Your task to perform on an android device: Open eBay Image 0: 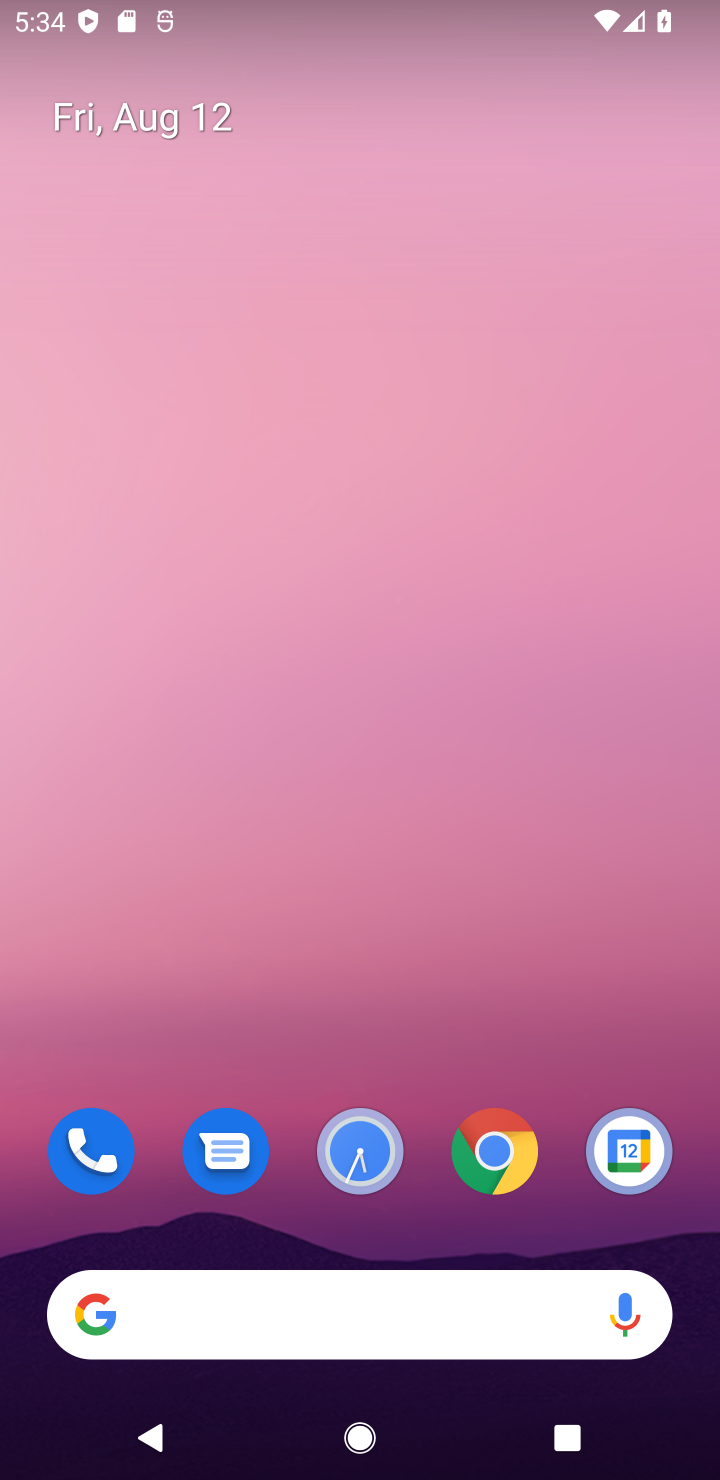
Step 0: press home button
Your task to perform on an android device: Open eBay Image 1: 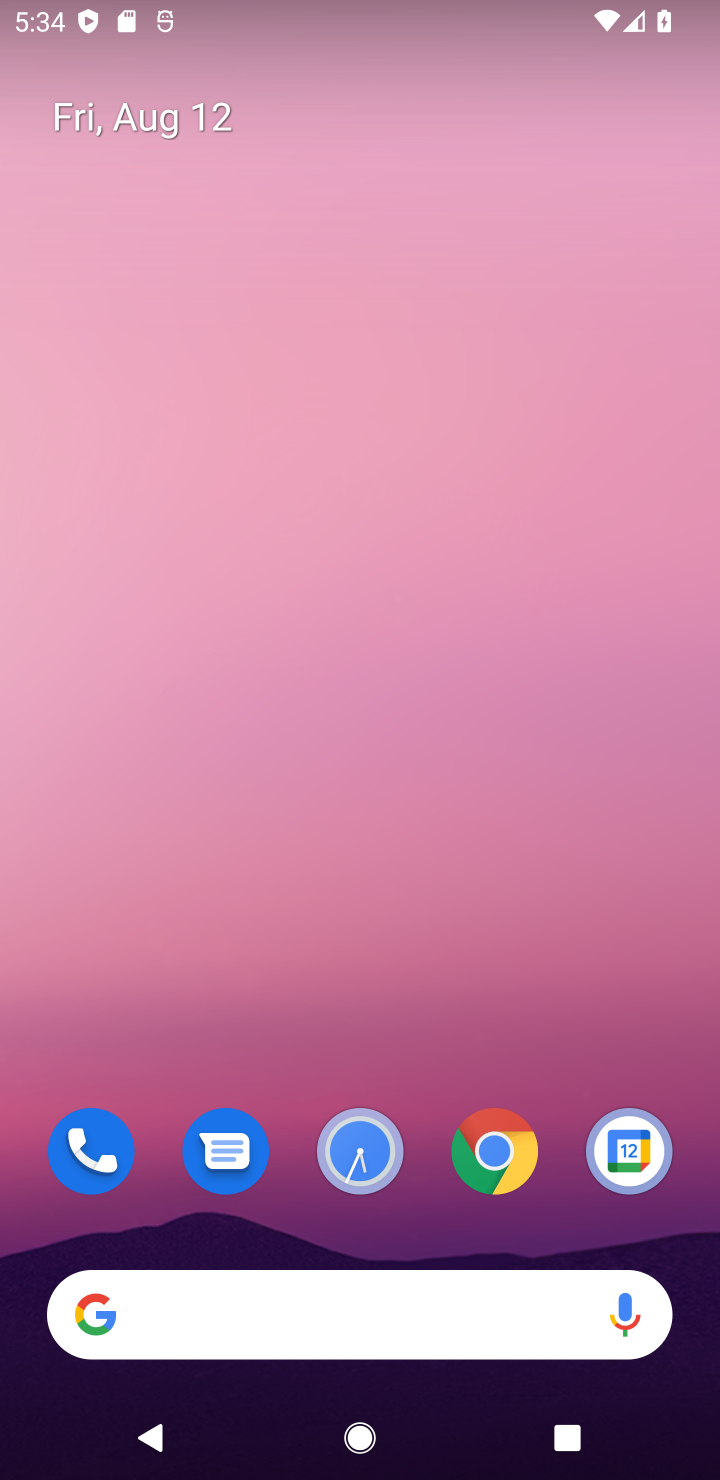
Step 1: drag from (522, 832) to (425, 179)
Your task to perform on an android device: Open eBay Image 2: 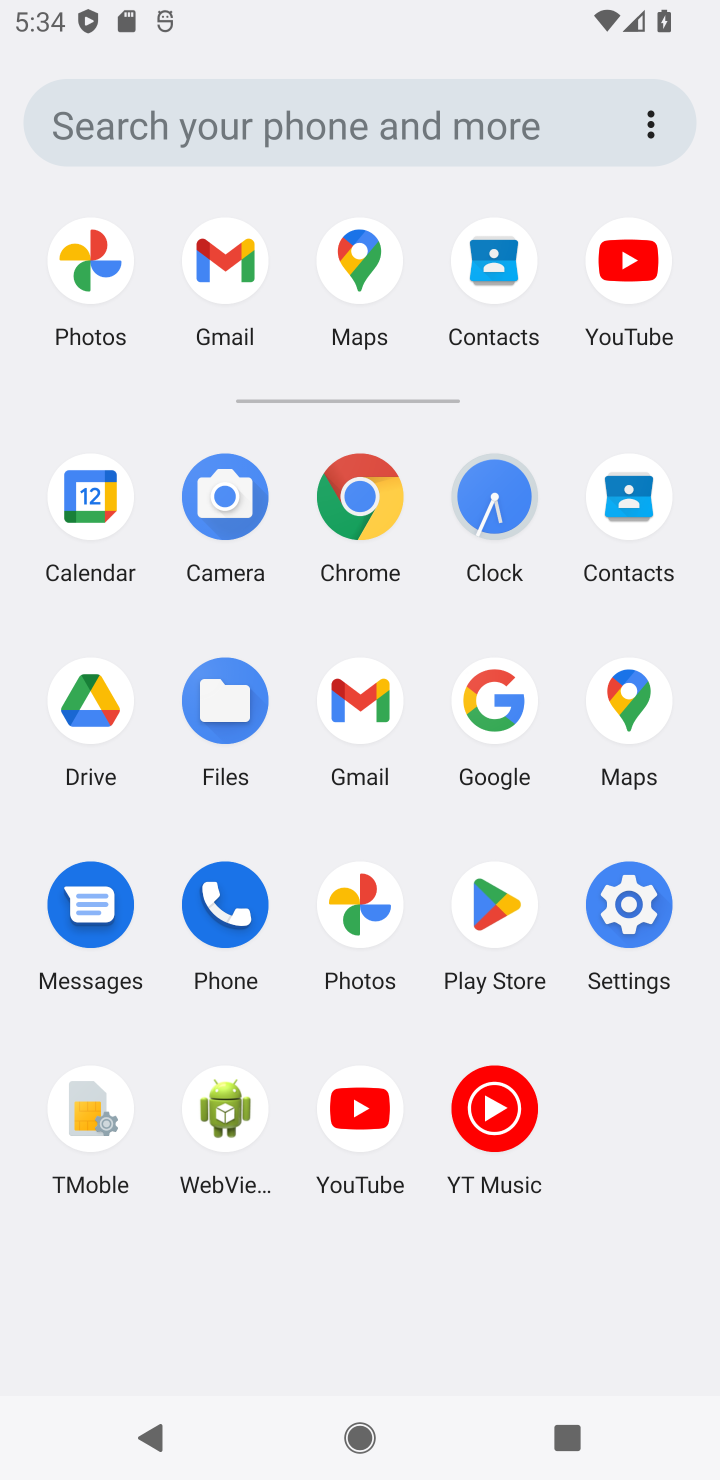
Step 2: click (380, 488)
Your task to perform on an android device: Open eBay Image 3: 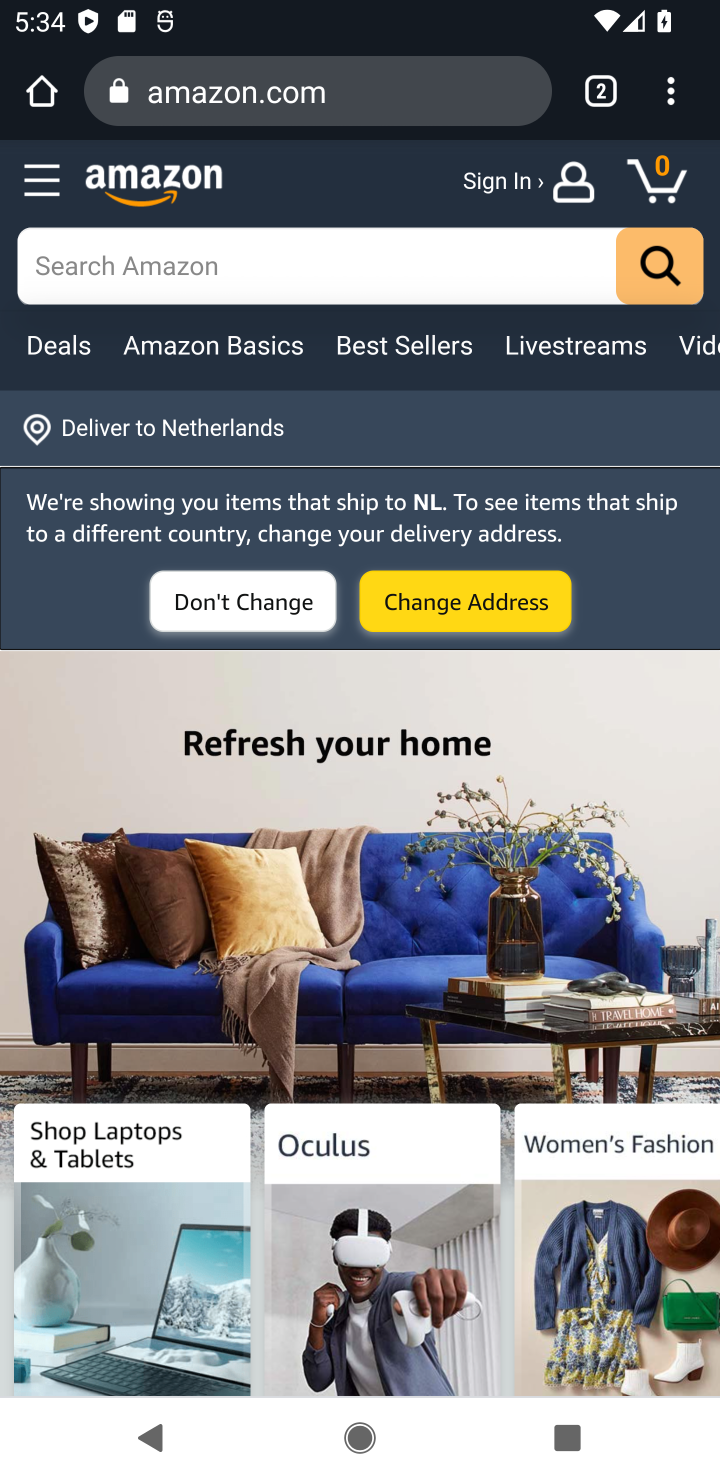
Step 3: click (433, 117)
Your task to perform on an android device: Open eBay Image 4: 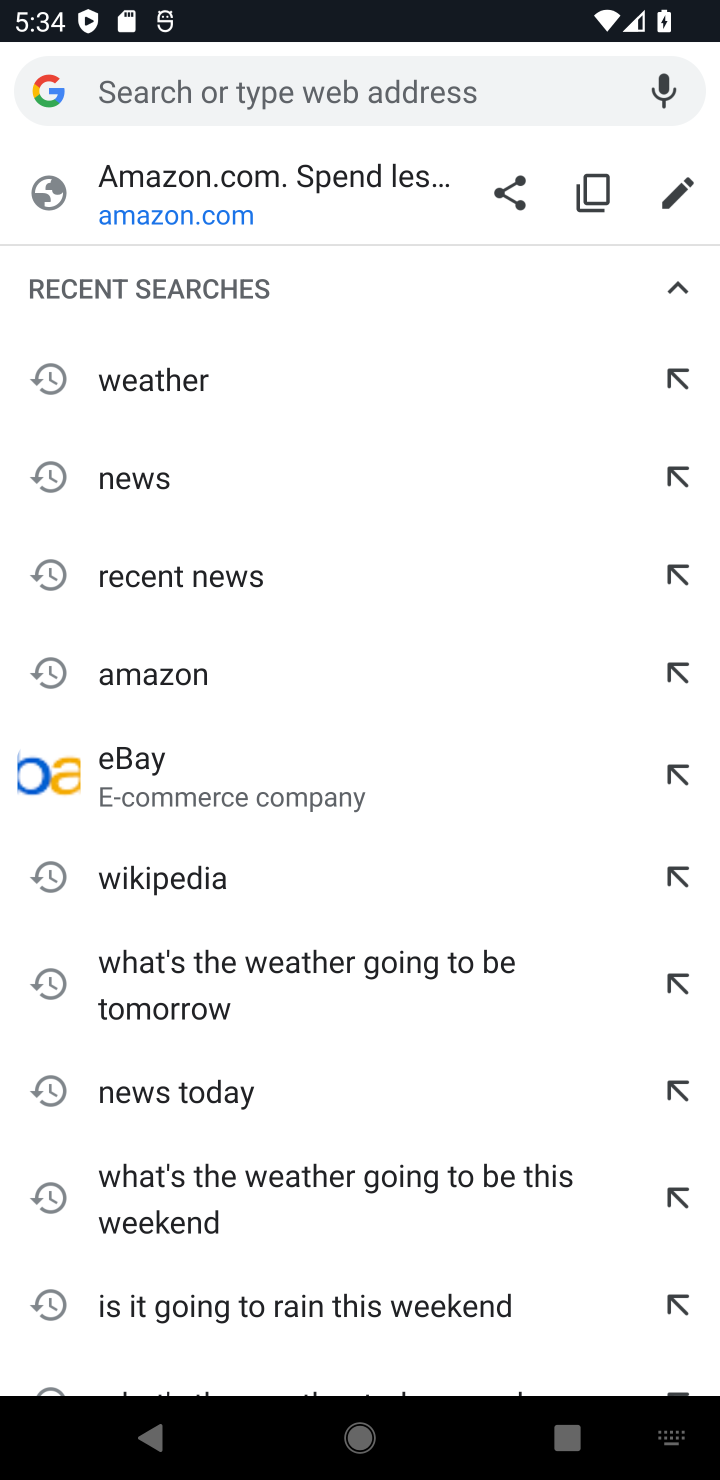
Step 4: type "ebay"
Your task to perform on an android device: Open eBay Image 5: 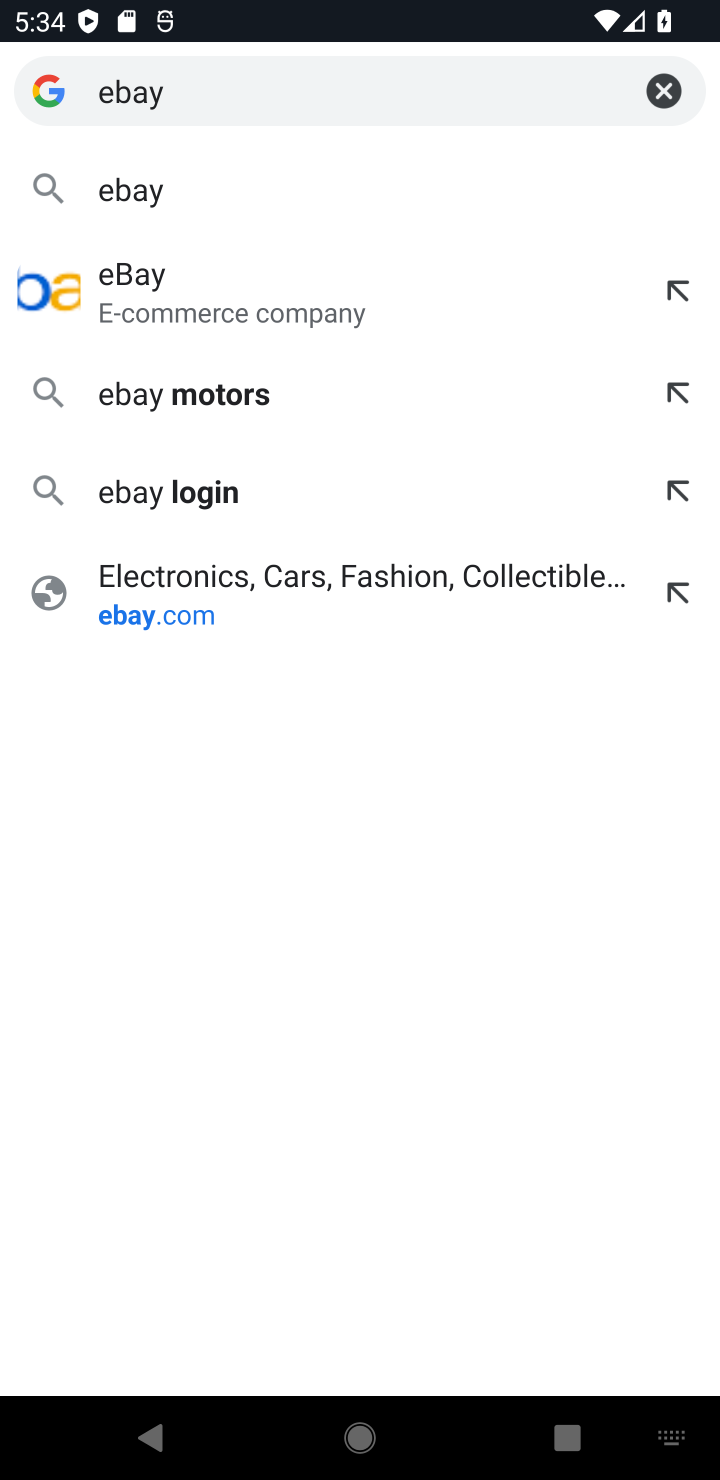
Step 5: click (171, 275)
Your task to perform on an android device: Open eBay Image 6: 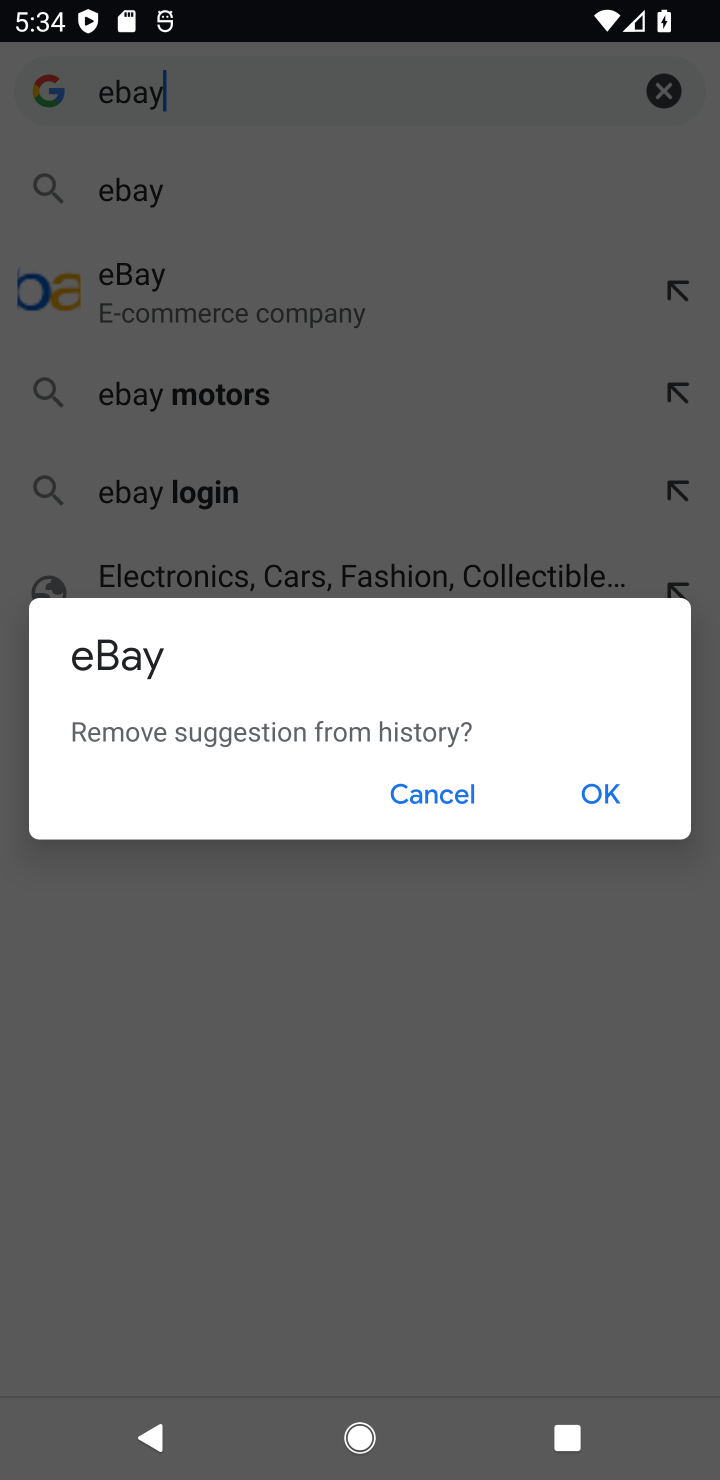
Step 6: click (443, 794)
Your task to perform on an android device: Open eBay Image 7: 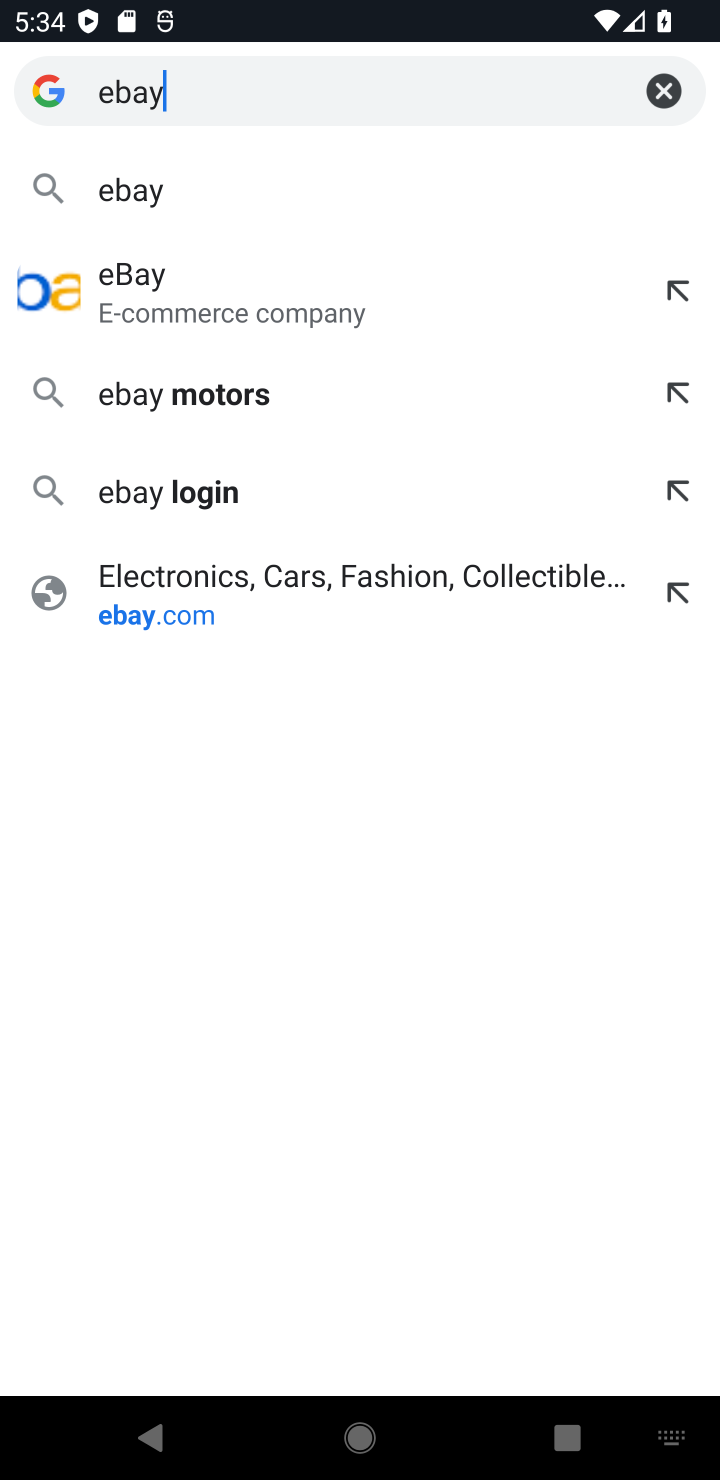
Step 7: click (207, 326)
Your task to perform on an android device: Open eBay Image 8: 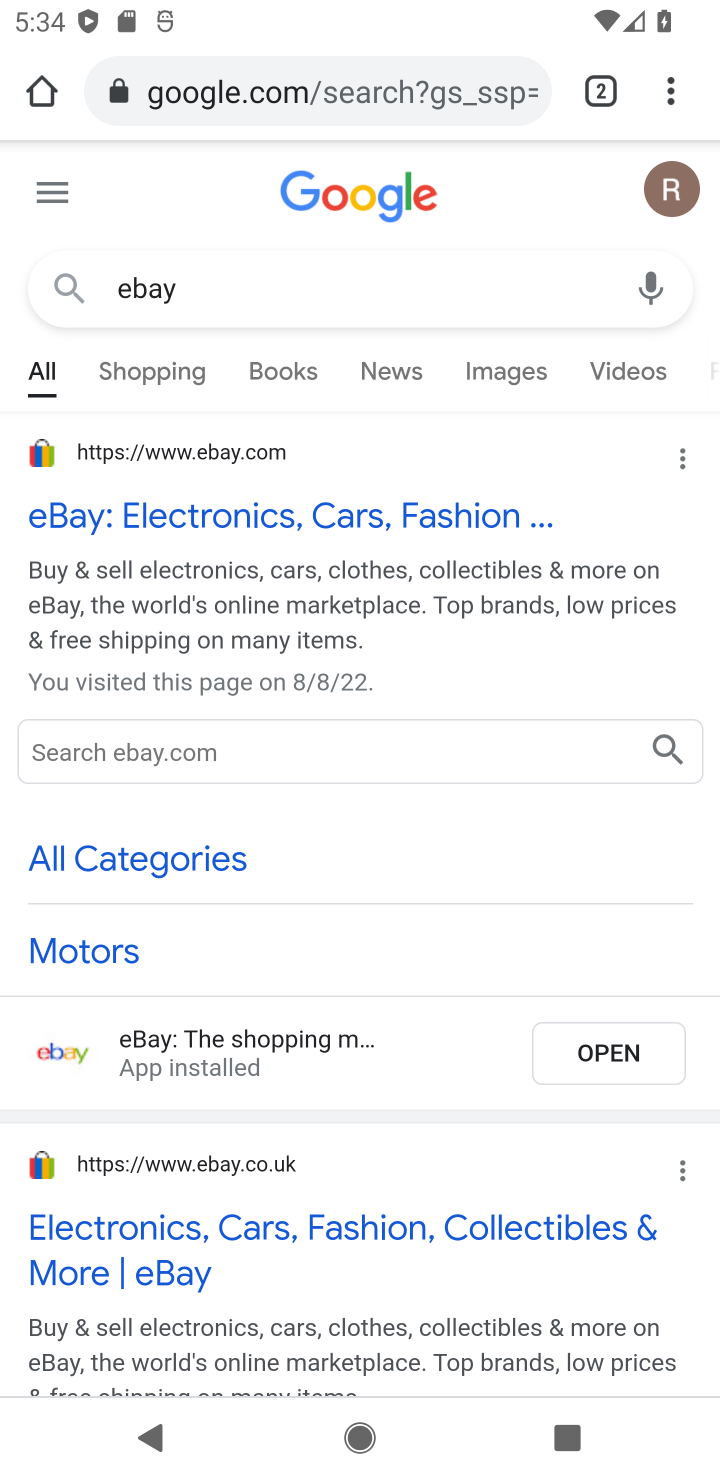
Step 8: click (189, 519)
Your task to perform on an android device: Open eBay Image 9: 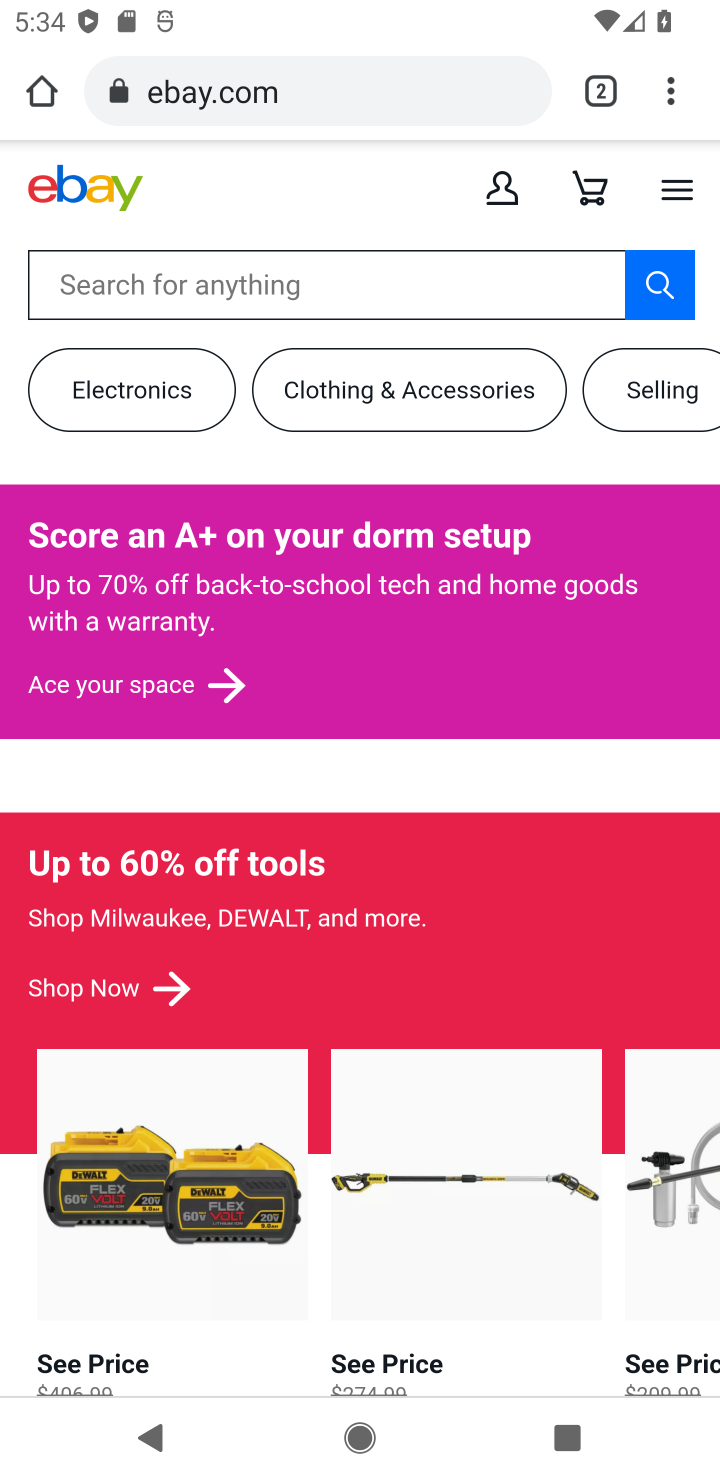
Step 9: task complete